Your task to perform on an android device: find snoozed emails in the gmail app Image 0: 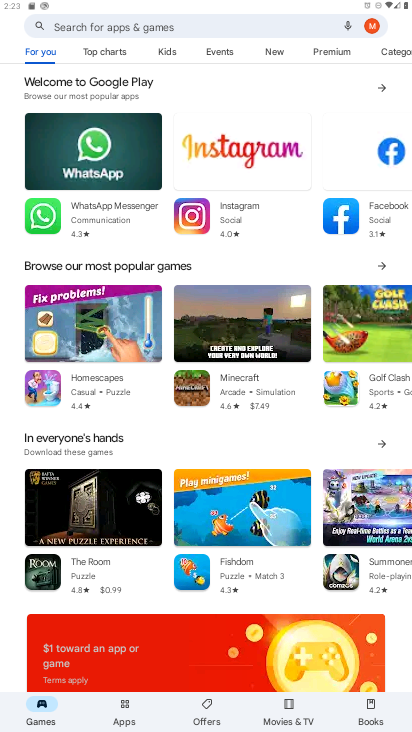
Step 0: press home button
Your task to perform on an android device: find snoozed emails in the gmail app Image 1: 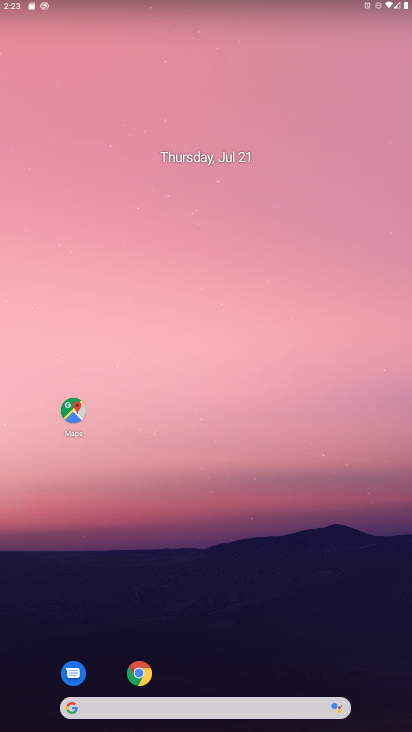
Step 1: drag from (170, 675) to (172, 202)
Your task to perform on an android device: find snoozed emails in the gmail app Image 2: 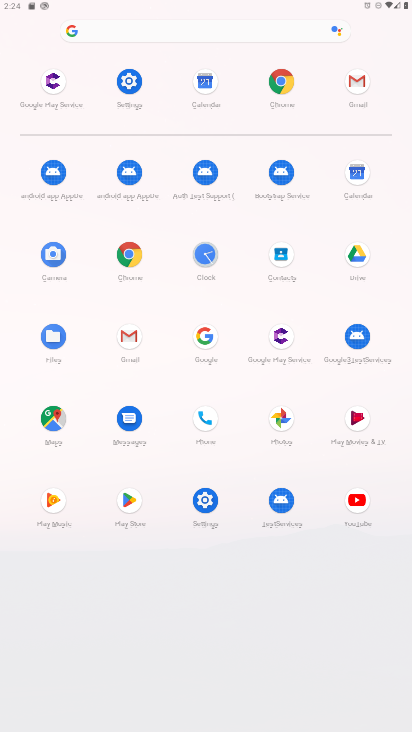
Step 2: click (359, 73)
Your task to perform on an android device: find snoozed emails in the gmail app Image 3: 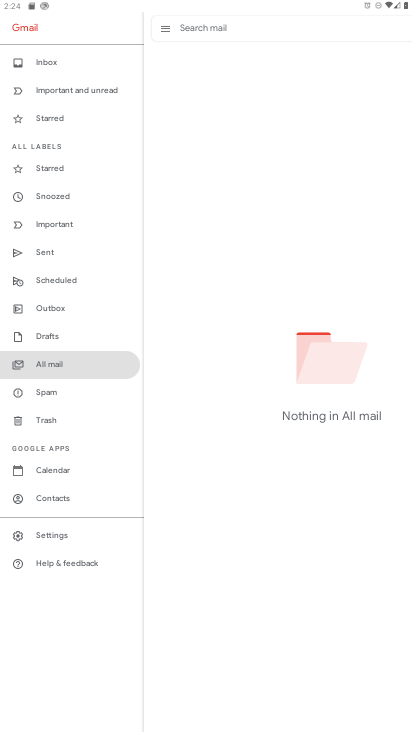
Step 3: click (80, 196)
Your task to perform on an android device: find snoozed emails in the gmail app Image 4: 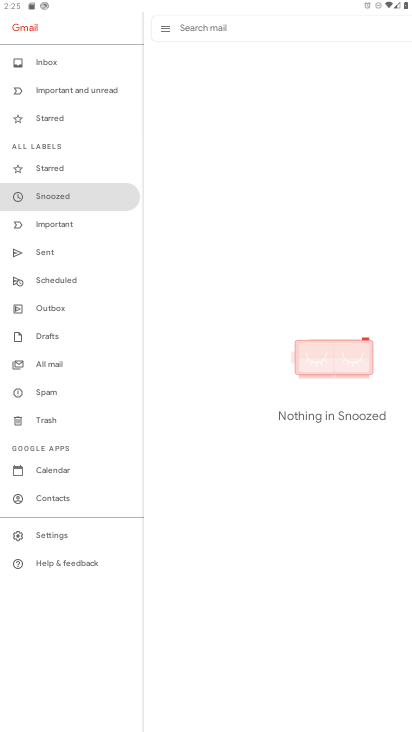
Step 4: task complete